Your task to perform on an android device: How much does the Sony TV cost? Image 0: 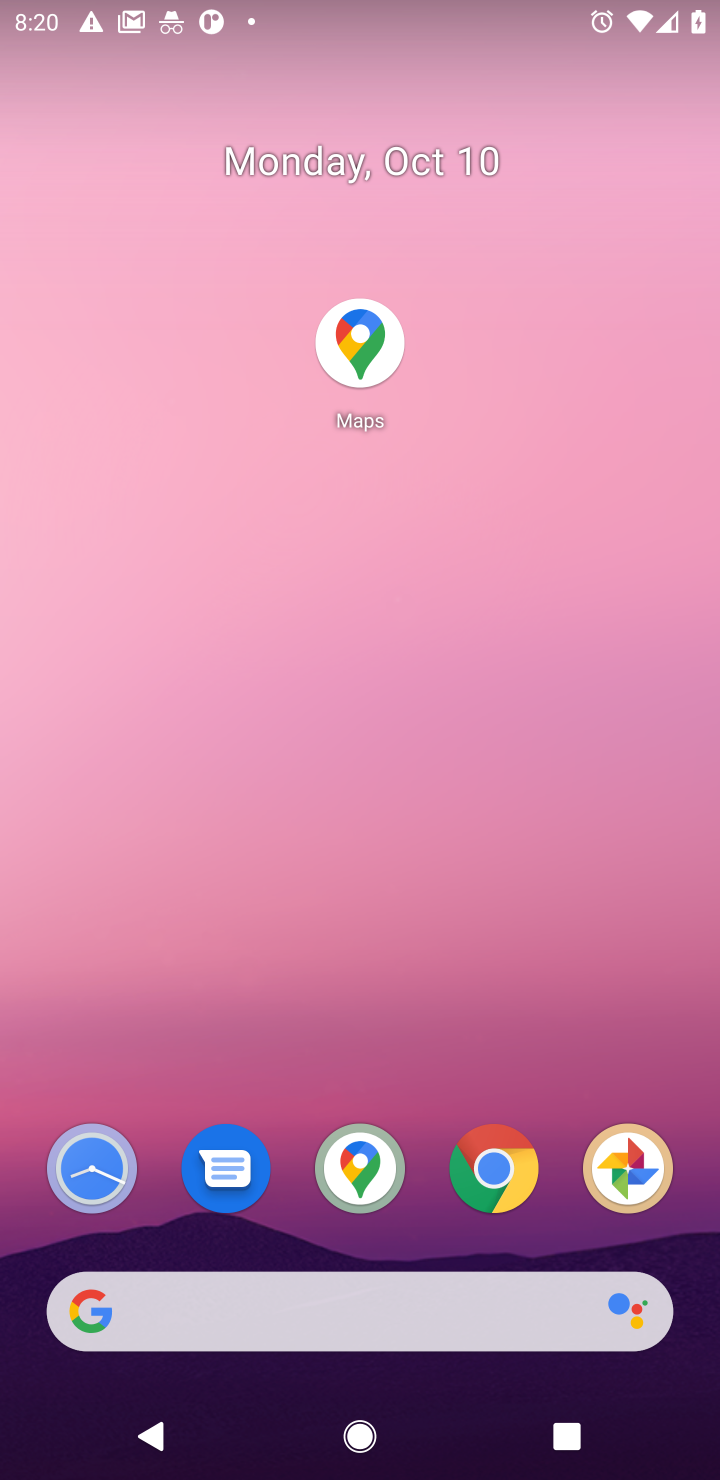
Step 0: click (501, 1148)
Your task to perform on an android device: How much does the Sony TV cost? Image 1: 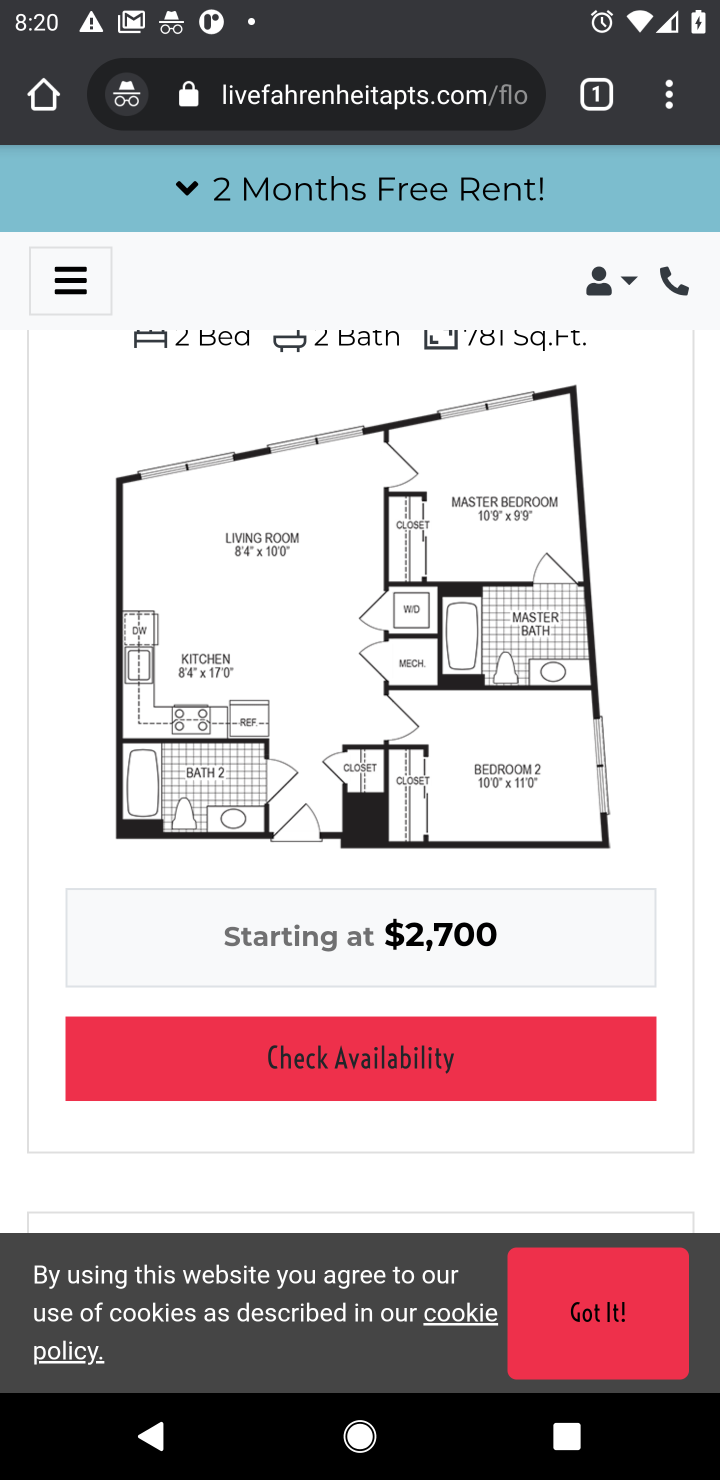
Step 1: click (299, 98)
Your task to perform on an android device: How much does the Sony TV cost? Image 2: 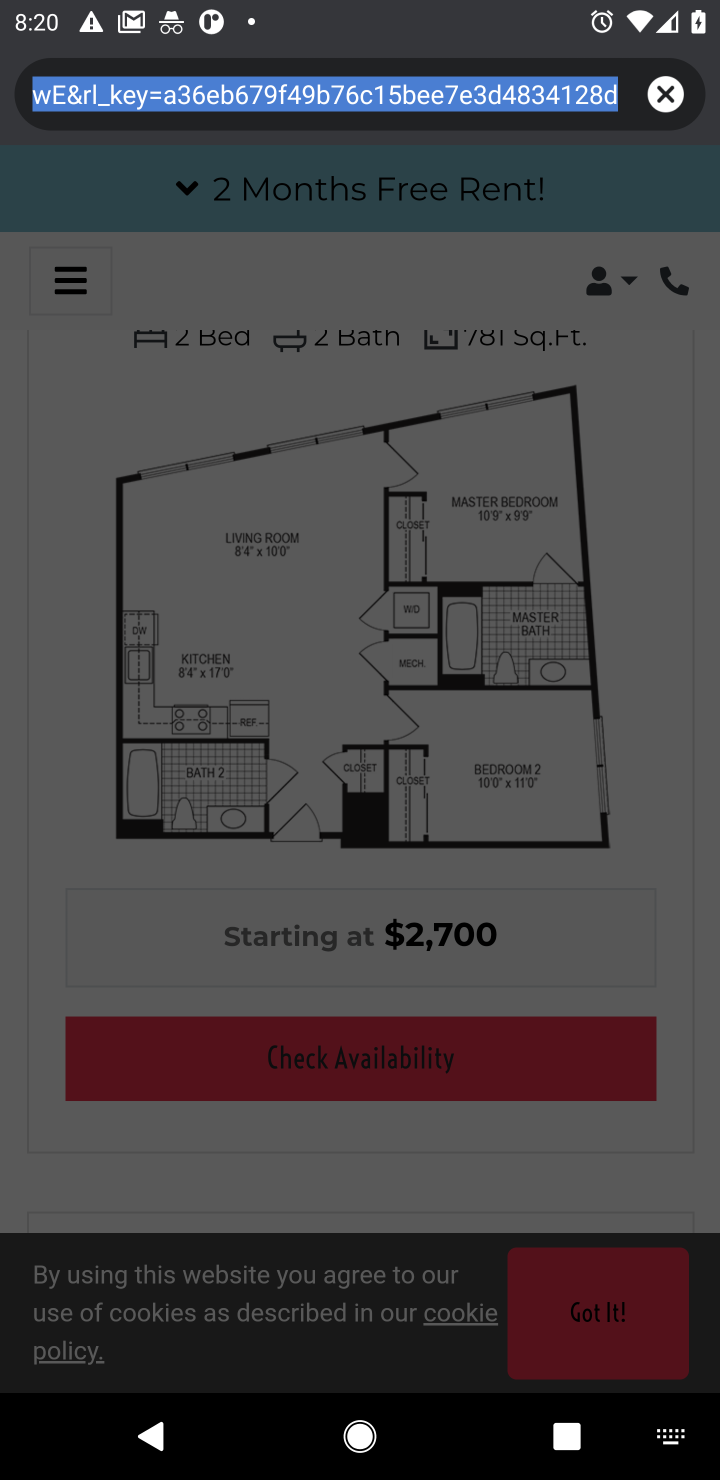
Step 2: click (658, 102)
Your task to perform on an android device: How much does the Sony TV cost? Image 3: 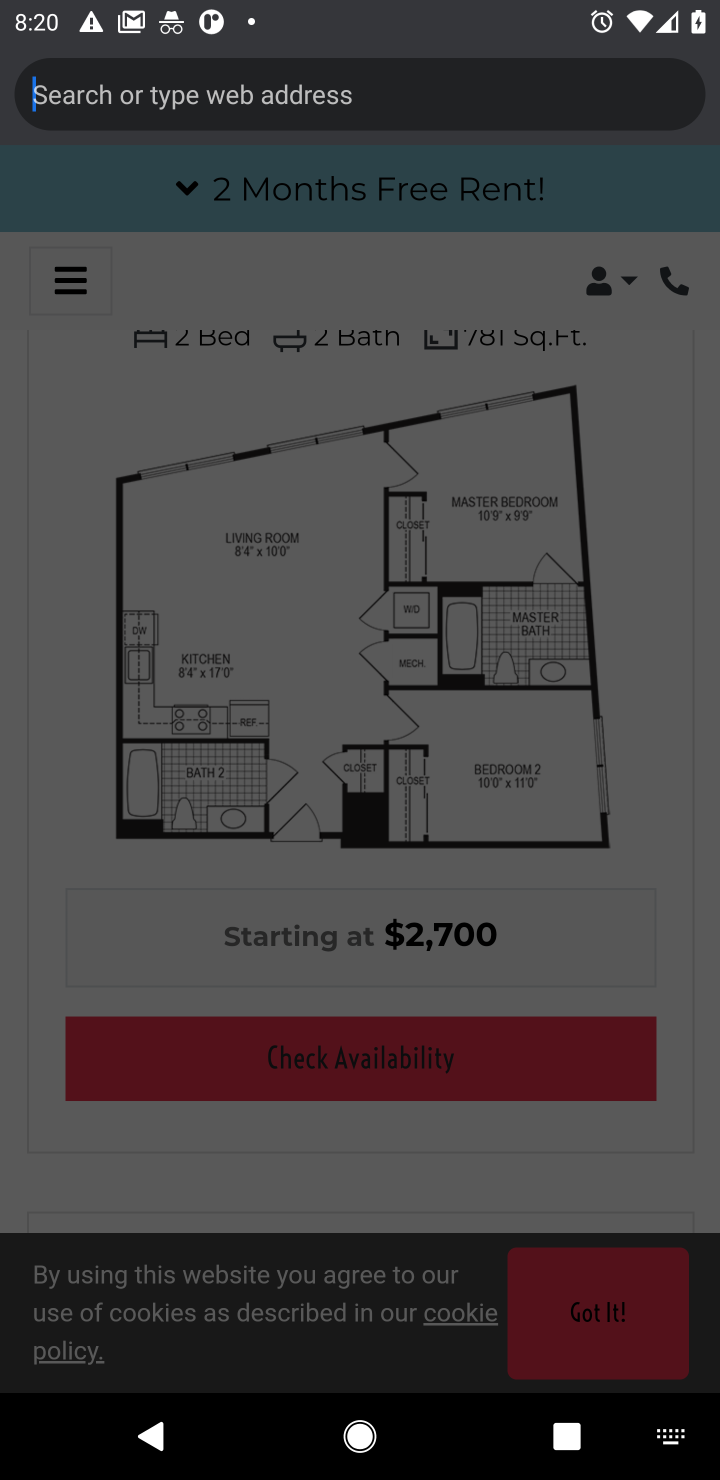
Step 3: type "sony tv cost"
Your task to perform on an android device: How much does the Sony TV cost? Image 4: 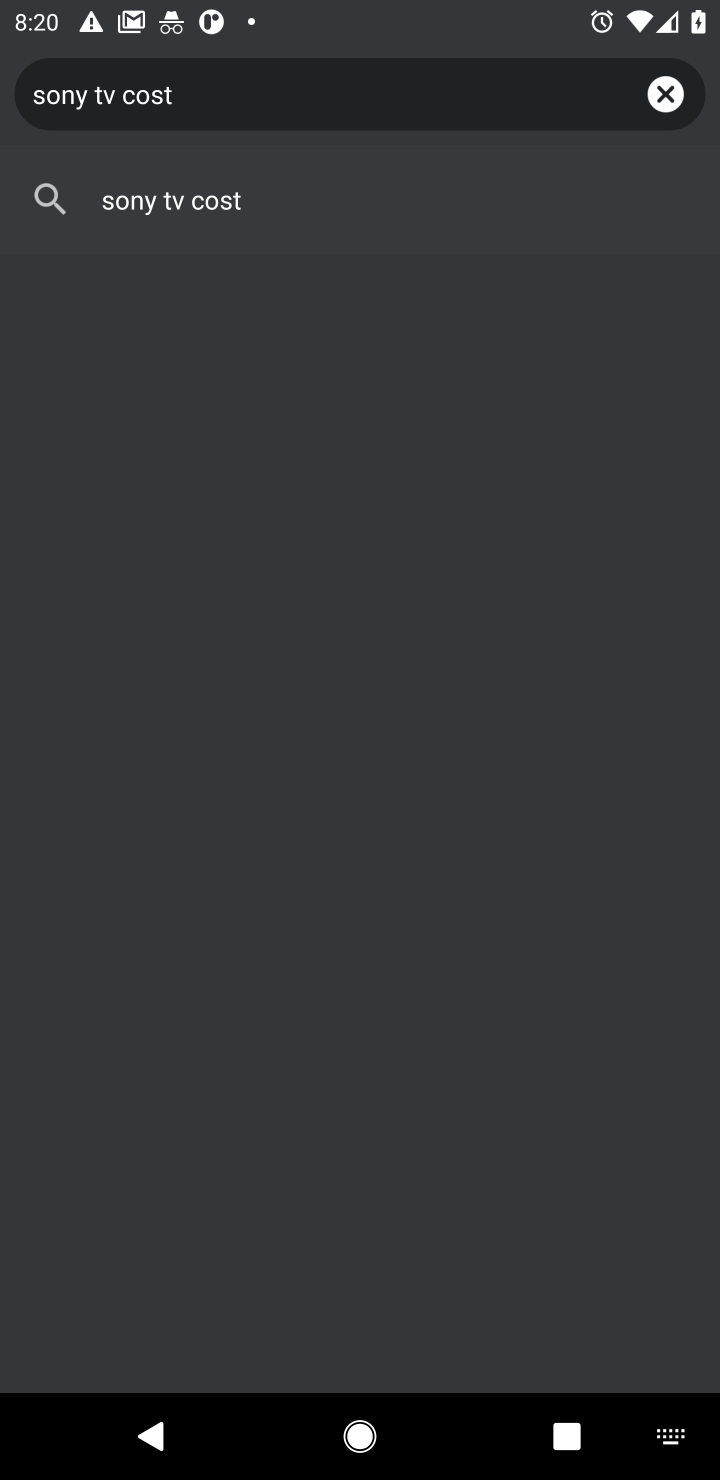
Step 4: click (163, 216)
Your task to perform on an android device: How much does the Sony TV cost? Image 5: 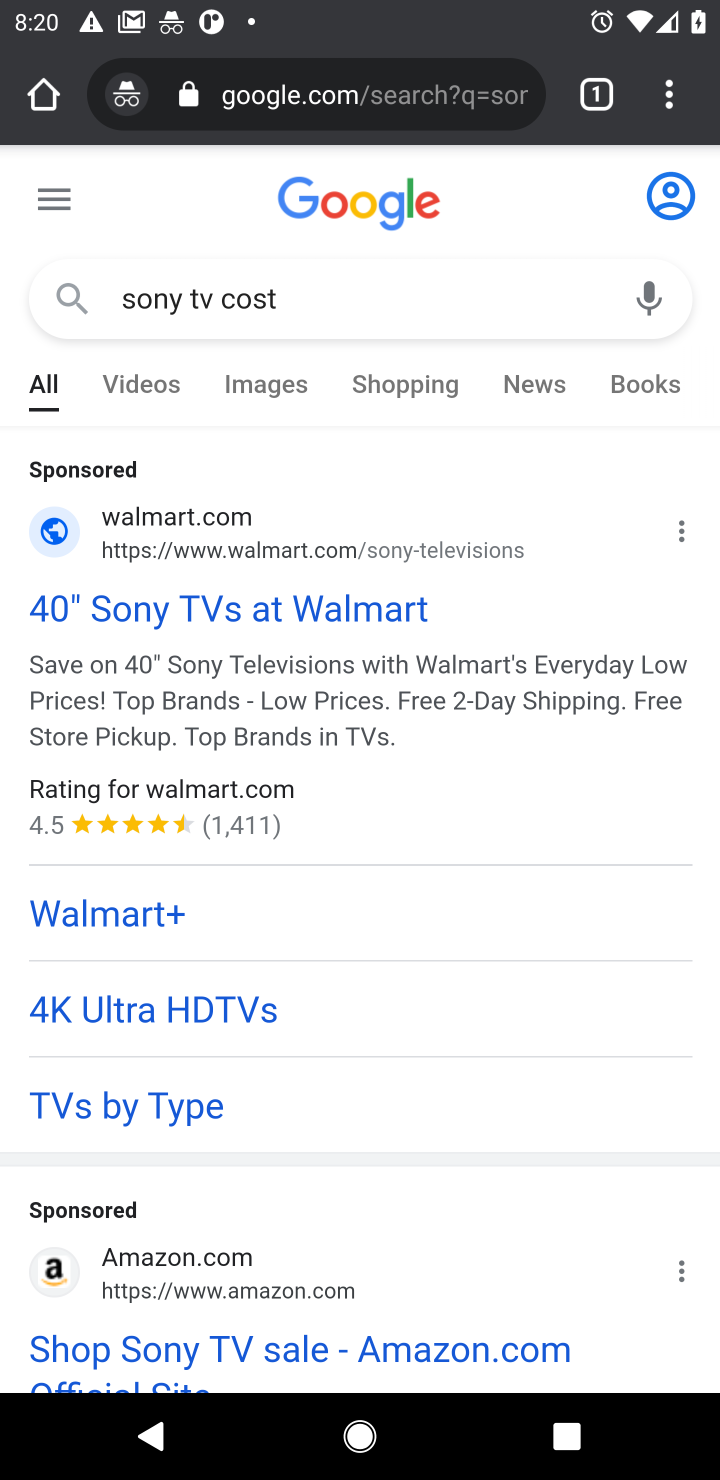
Step 5: click (382, 392)
Your task to perform on an android device: How much does the Sony TV cost? Image 6: 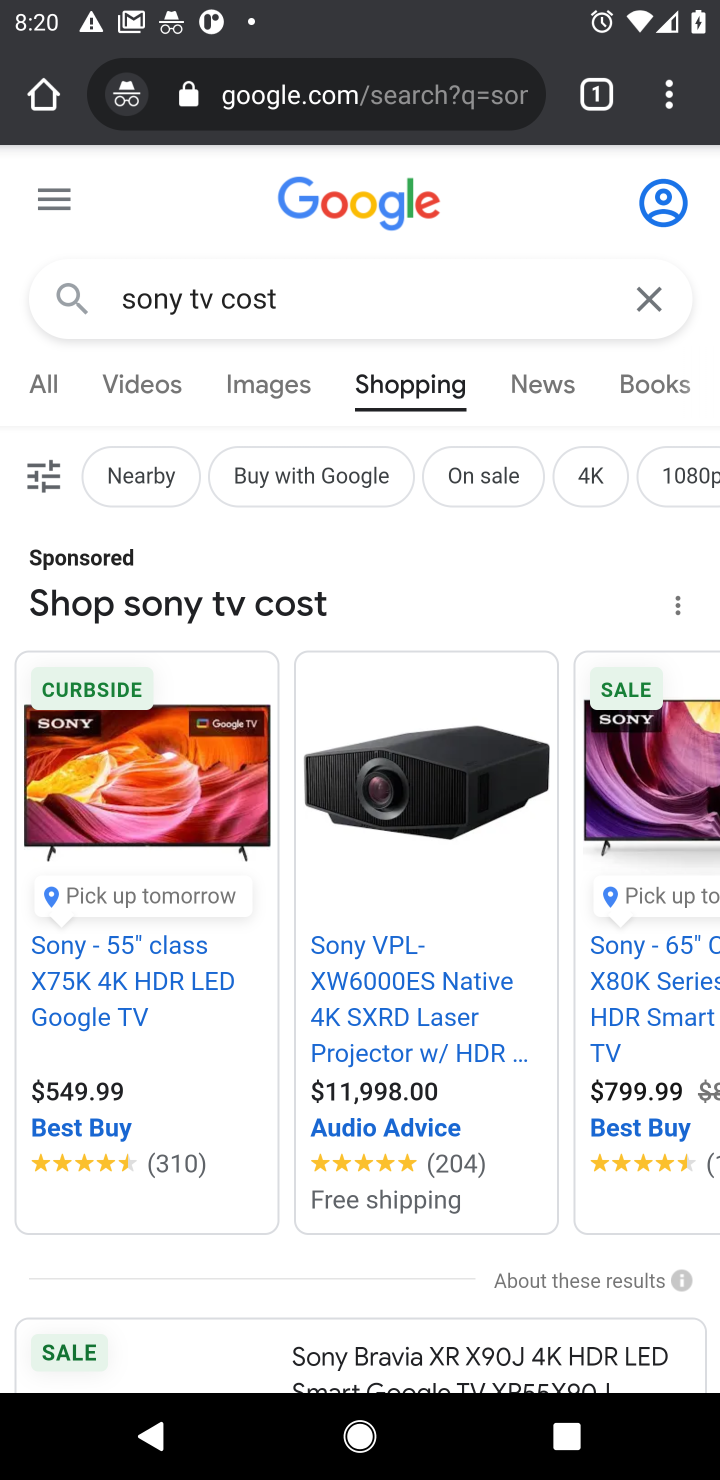
Step 6: task complete